Your task to perform on an android device: Open display settings Image 0: 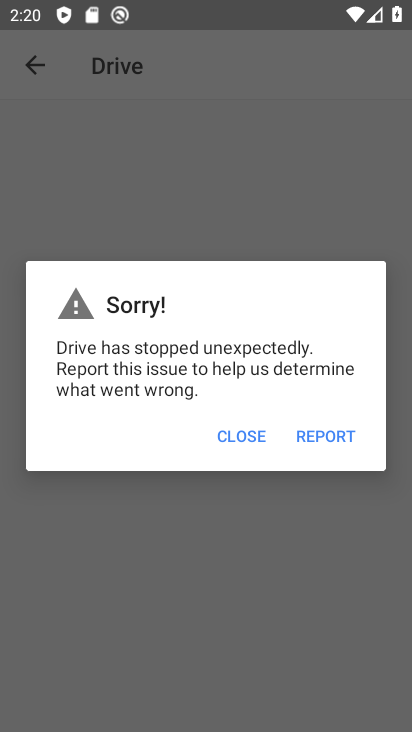
Step 0: press home button
Your task to perform on an android device: Open display settings Image 1: 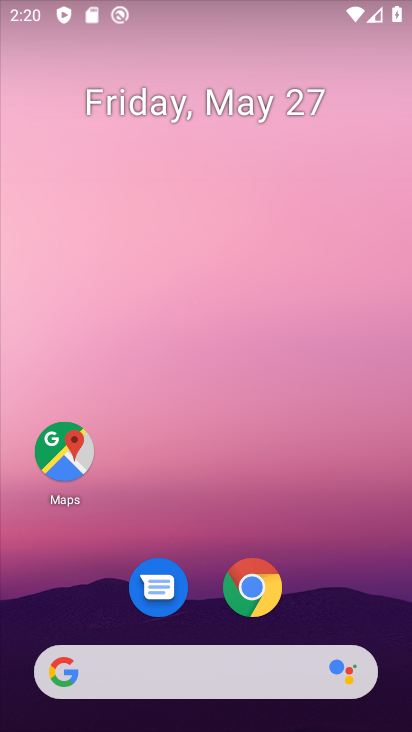
Step 1: drag from (282, 501) to (251, 174)
Your task to perform on an android device: Open display settings Image 2: 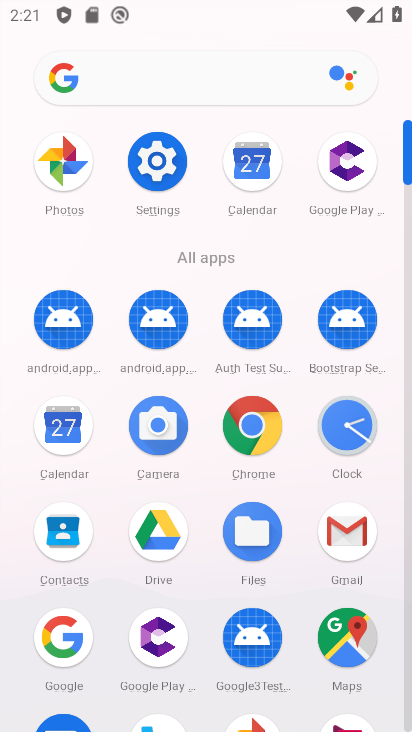
Step 2: click (162, 155)
Your task to perform on an android device: Open display settings Image 3: 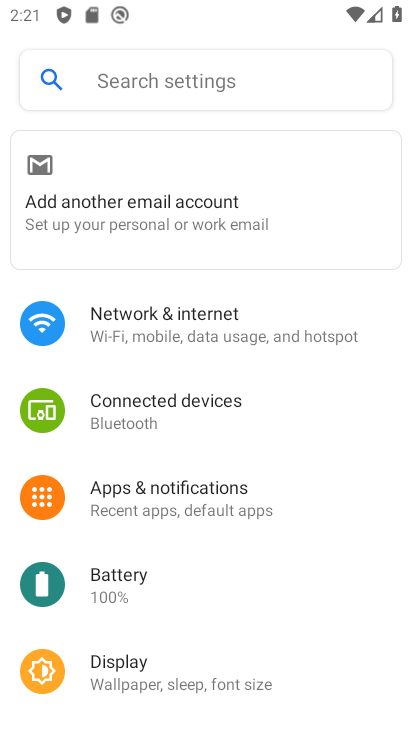
Step 3: click (164, 671)
Your task to perform on an android device: Open display settings Image 4: 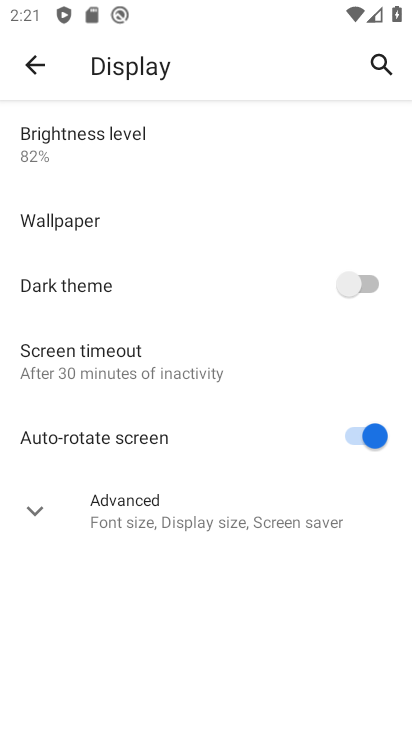
Step 4: task complete